Your task to perform on an android device: add a contact Image 0: 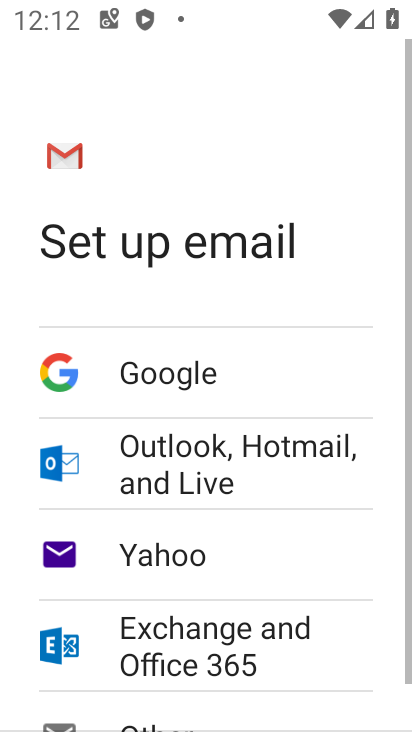
Step 0: click (399, 514)
Your task to perform on an android device: add a contact Image 1: 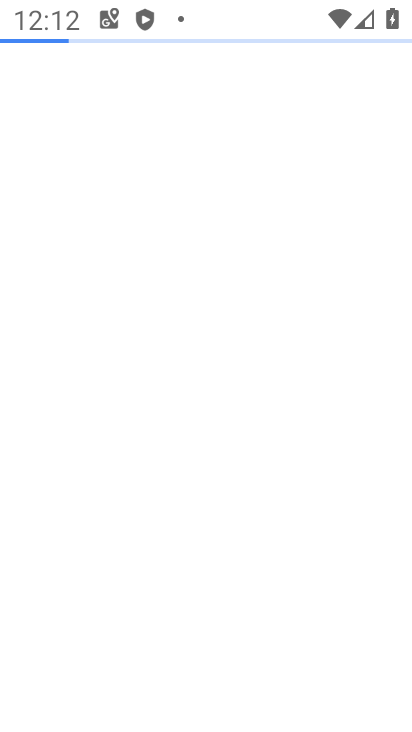
Step 1: press home button
Your task to perform on an android device: add a contact Image 2: 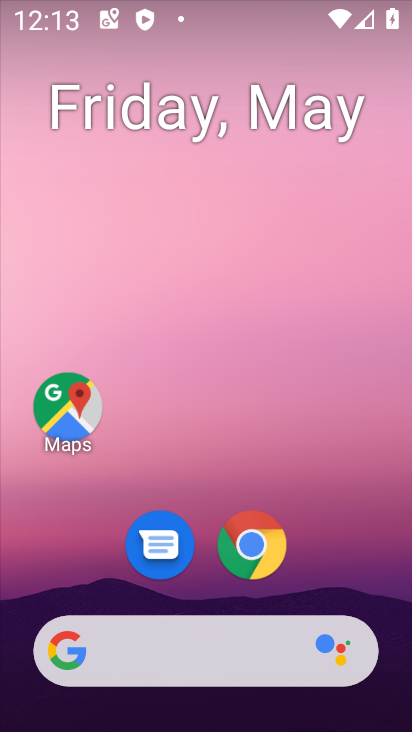
Step 2: drag from (313, 593) to (304, 325)
Your task to perform on an android device: add a contact Image 3: 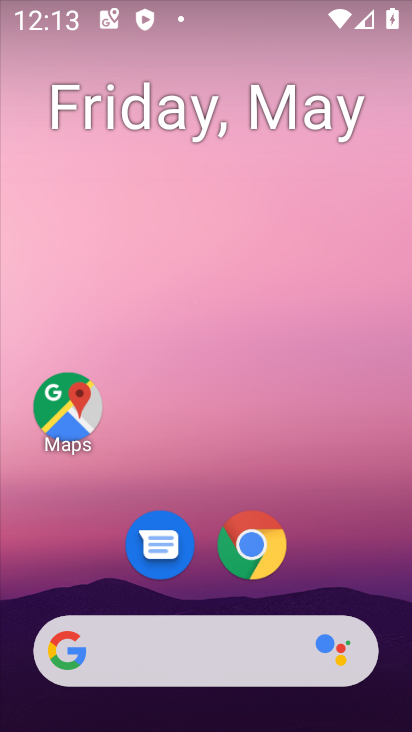
Step 3: drag from (224, 312) to (225, 254)
Your task to perform on an android device: add a contact Image 4: 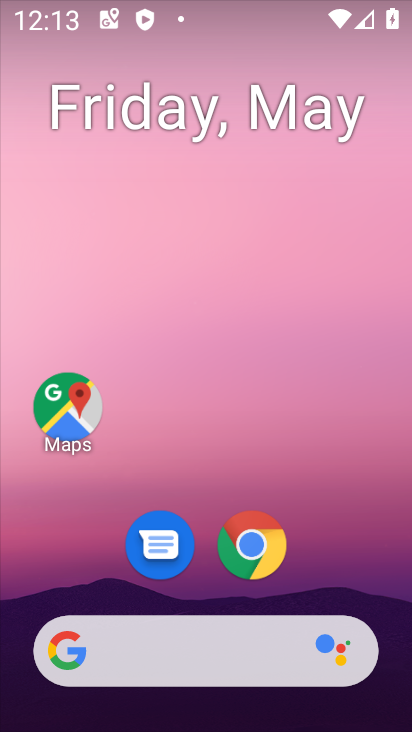
Step 4: drag from (296, 582) to (311, 206)
Your task to perform on an android device: add a contact Image 5: 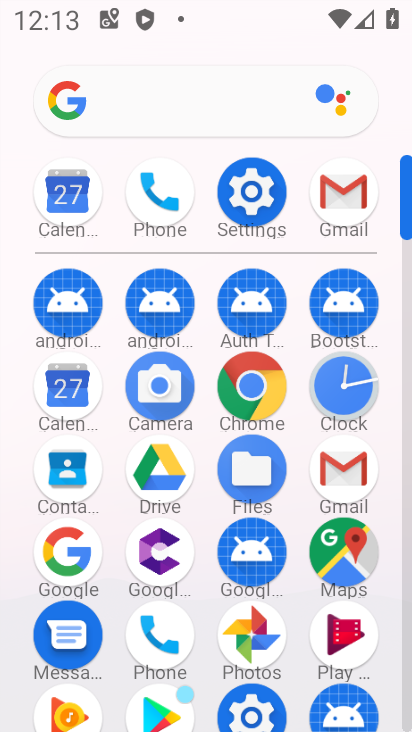
Step 5: click (155, 181)
Your task to perform on an android device: add a contact Image 6: 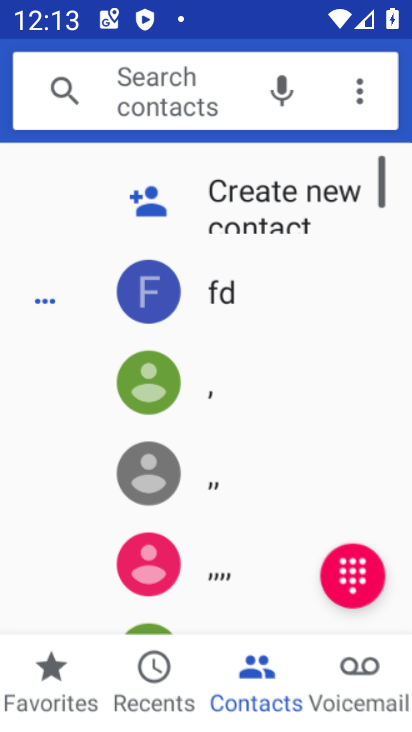
Step 6: click (235, 204)
Your task to perform on an android device: add a contact Image 7: 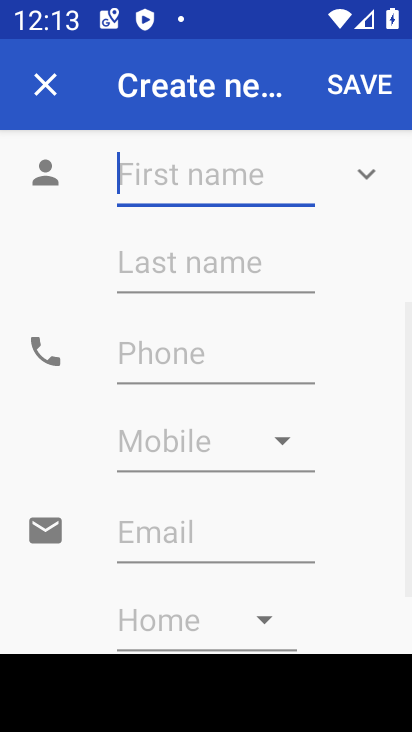
Step 7: click (165, 167)
Your task to perform on an android device: add a contact Image 8: 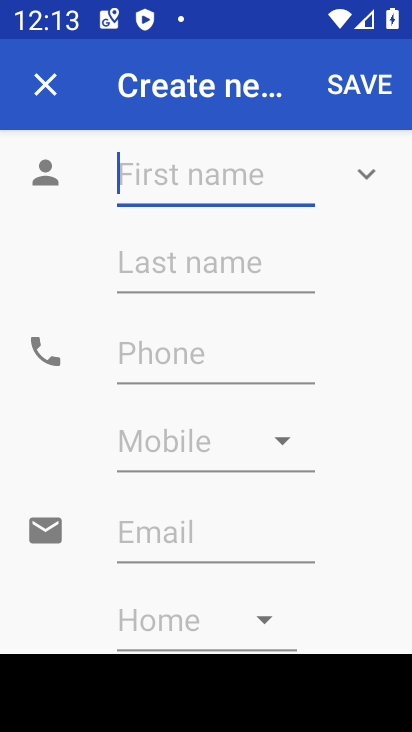
Step 8: type "klklklklklklk"
Your task to perform on an android device: add a contact Image 9: 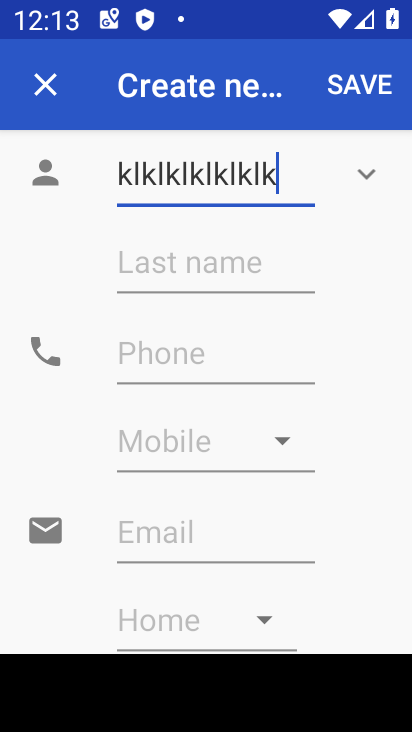
Step 9: click (179, 343)
Your task to perform on an android device: add a contact Image 10: 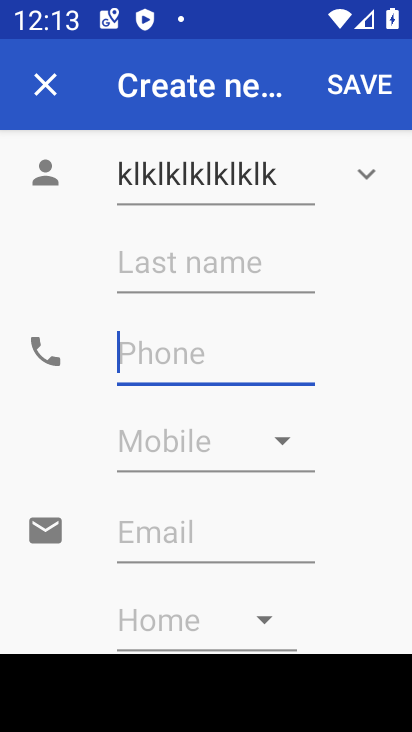
Step 10: type "234567890"
Your task to perform on an android device: add a contact Image 11: 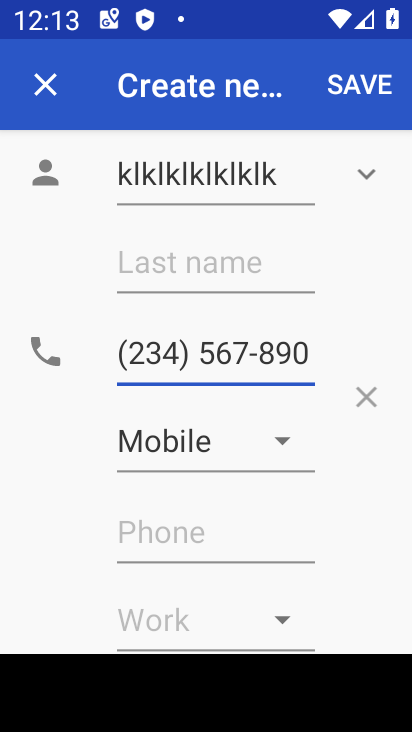
Step 11: click (368, 88)
Your task to perform on an android device: add a contact Image 12: 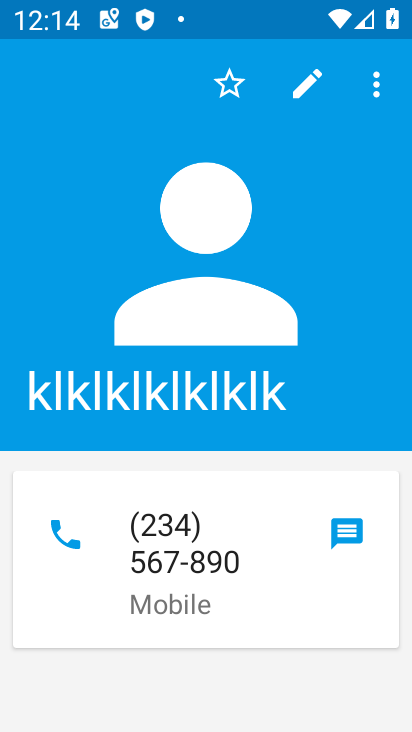
Step 12: task complete